Your task to perform on an android device: Go to eBay Image 0: 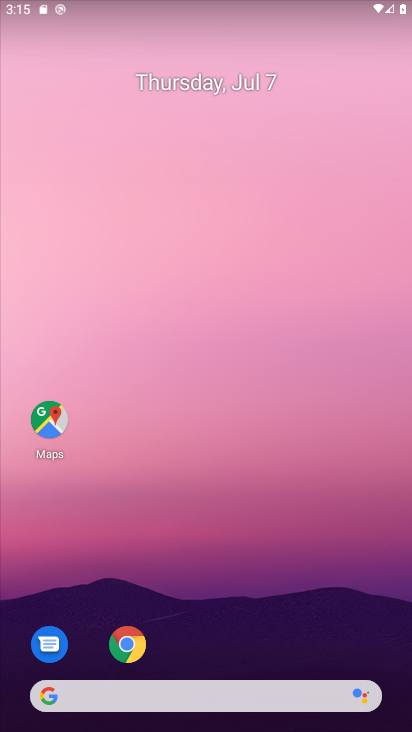
Step 0: click (136, 644)
Your task to perform on an android device: Go to eBay Image 1: 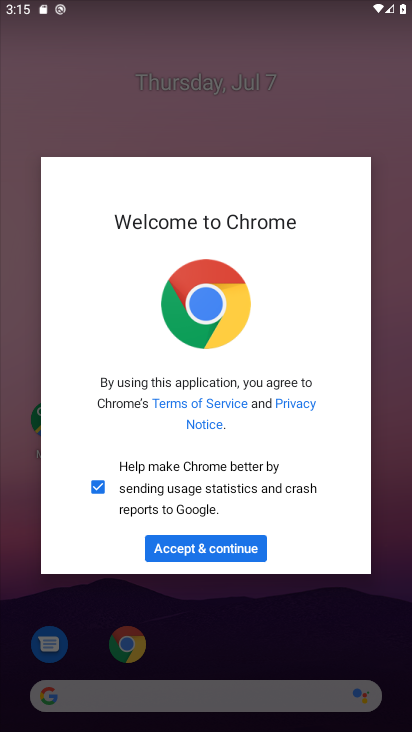
Step 1: click (167, 171)
Your task to perform on an android device: Go to eBay Image 2: 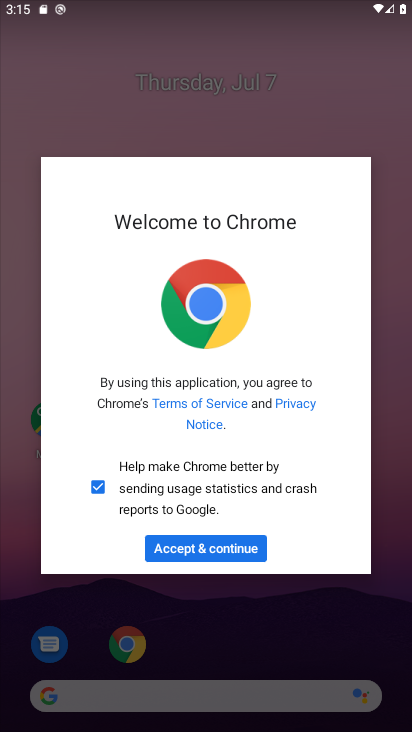
Step 2: click (241, 547)
Your task to perform on an android device: Go to eBay Image 3: 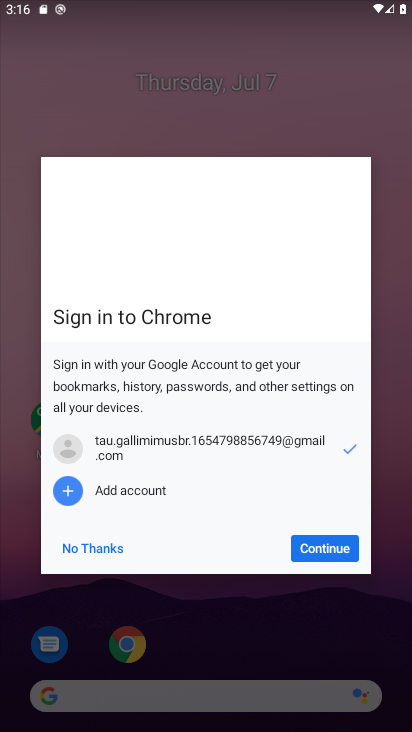
Step 3: click (333, 545)
Your task to perform on an android device: Go to eBay Image 4: 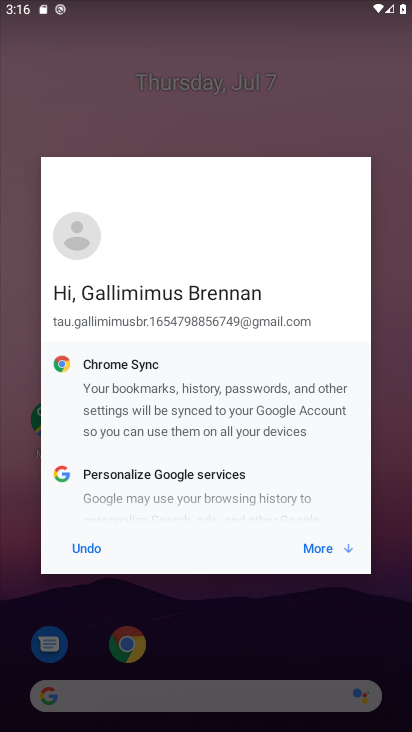
Step 4: click (333, 545)
Your task to perform on an android device: Go to eBay Image 5: 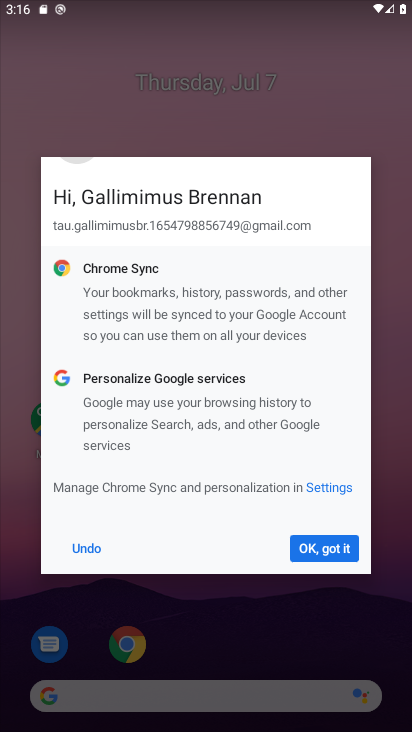
Step 5: click (333, 545)
Your task to perform on an android device: Go to eBay Image 6: 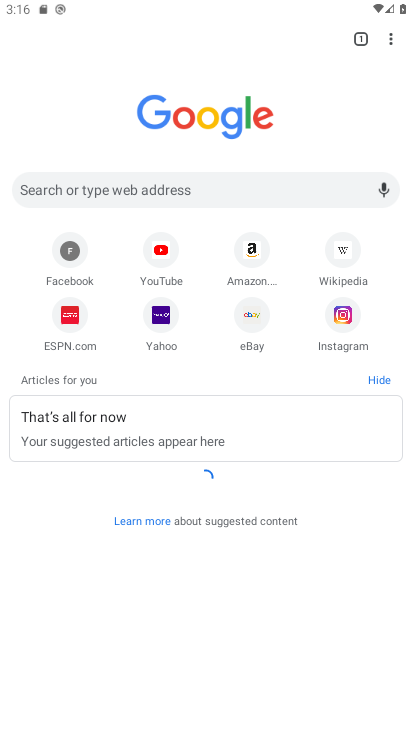
Step 6: click (250, 304)
Your task to perform on an android device: Go to eBay Image 7: 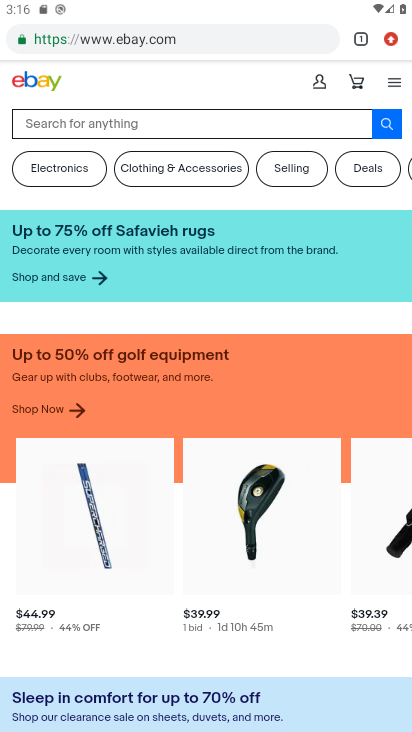
Step 7: task complete